Your task to perform on an android device: Open calendar and show me the fourth week of next month Image 0: 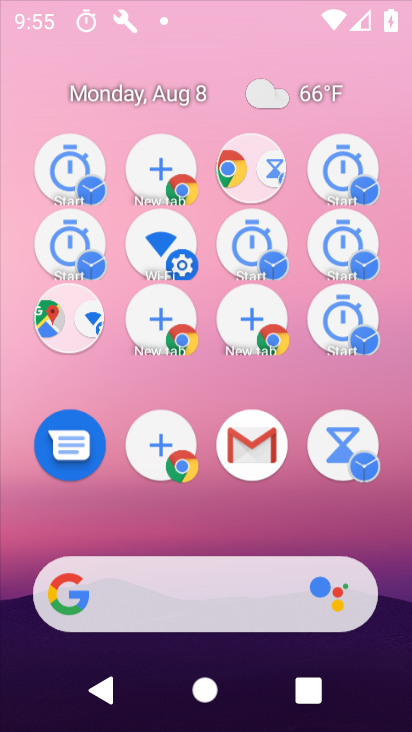
Step 0: click (228, 196)
Your task to perform on an android device: Open calendar and show me the fourth week of next month Image 1: 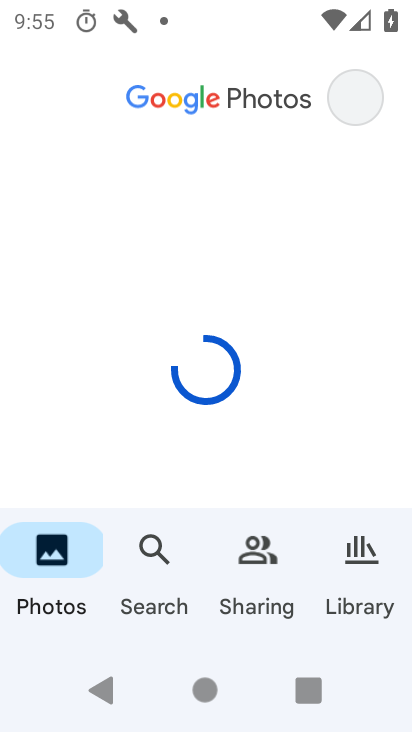
Step 1: press back button
Your task to perform on an android device: Open calendar and show me the fourth week of next month Image 2: 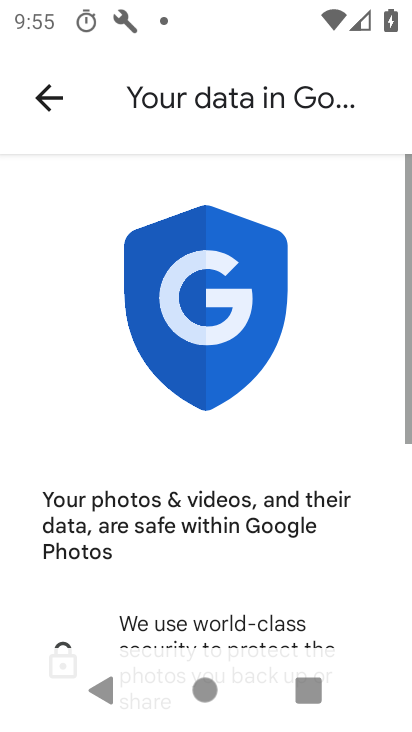
Step 2: press home button
Your task to perform on an android device: Open calendar and show me the fourth week of next month Image 3: 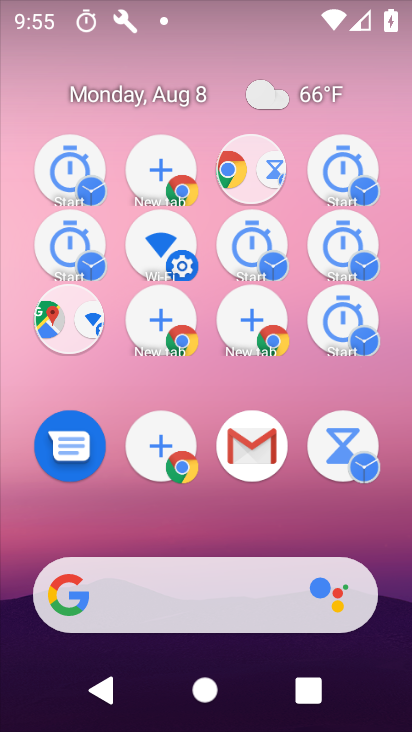
Step 3: drag from (234, 594) to (162, 242)
Your task to perform on an android device: Open calendar and show me the fourth week of next month Image 4: 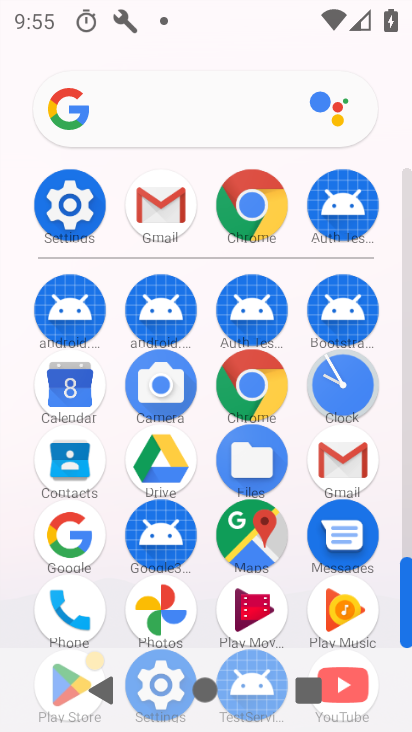
Step 4: click (68, 392)
Your task to perform on an android device: Open calendar and show me the fourth week of next month Image 5: 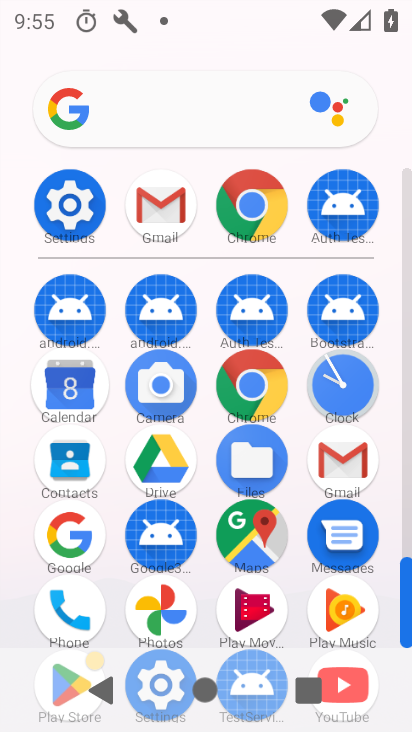
Step 5: click (68, 392)
Your task to perform on an android device: Open calendar and show me the fourth week of next month Image 6: 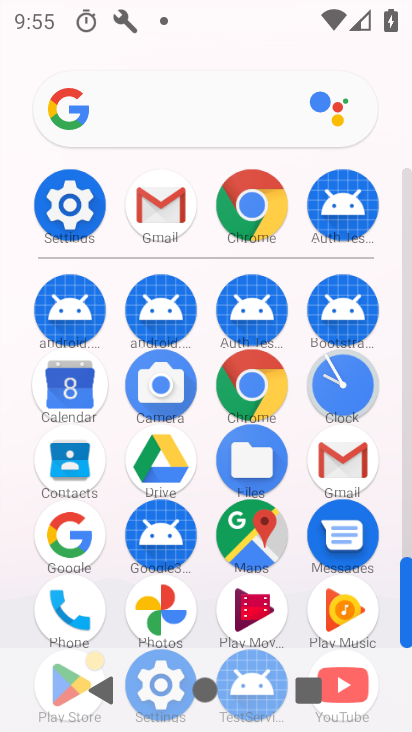
Step 6: click (68, 392)
Your task to perform on an android device: Open calendar and show me the fourth week of next month Image 7: 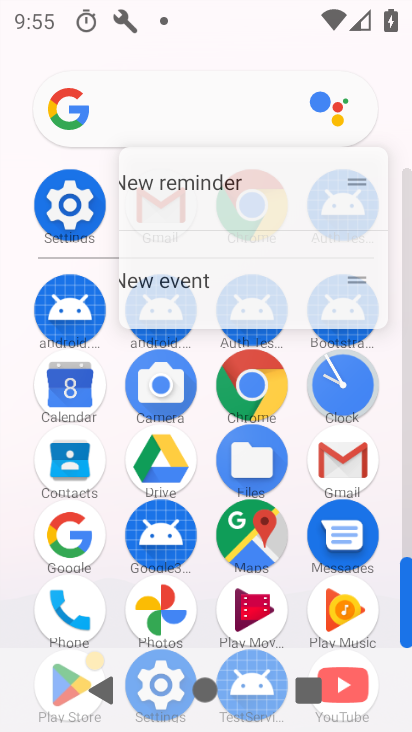
Step 7: click (68, 392)
Your task to perform on an android device: Open calendar and show me the fourth week of next month Image 8: 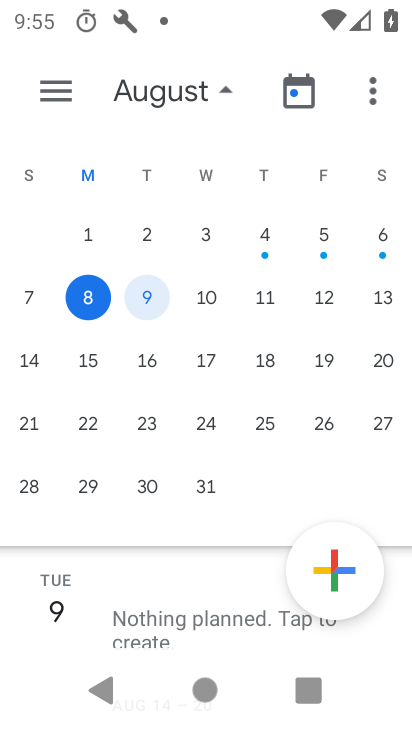
Step 8: drag from (329, 358) to (20, 359)
Your task to perform on an android device: Open calendar and show me the fourth week of next month Image 9: 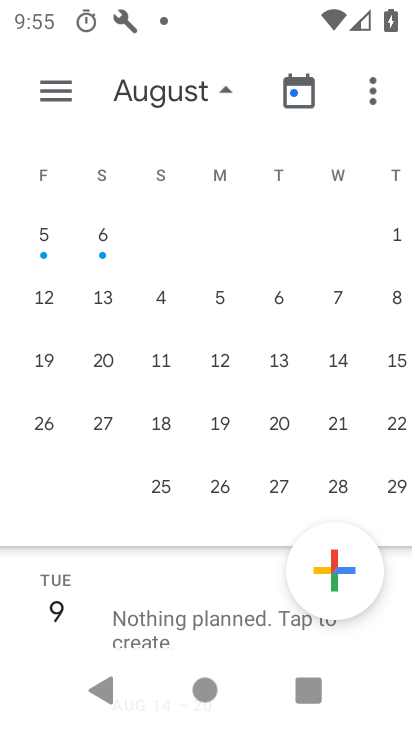
Step 9: drag from (317, 325) to (11, 343)
Your task to perform on an android device: Open calendar and show me the fourth week of next month Image 10: 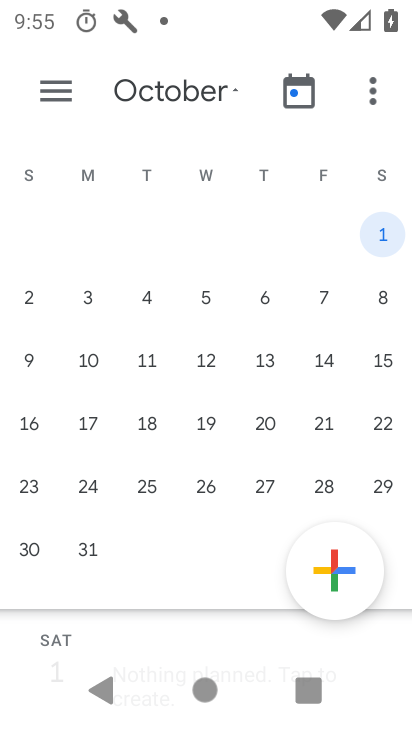
Step 10: drag from (76, 337) to (379, 343)
Your task to perform on an android device: Open calendar and show me the fourth week of next month Image 11: 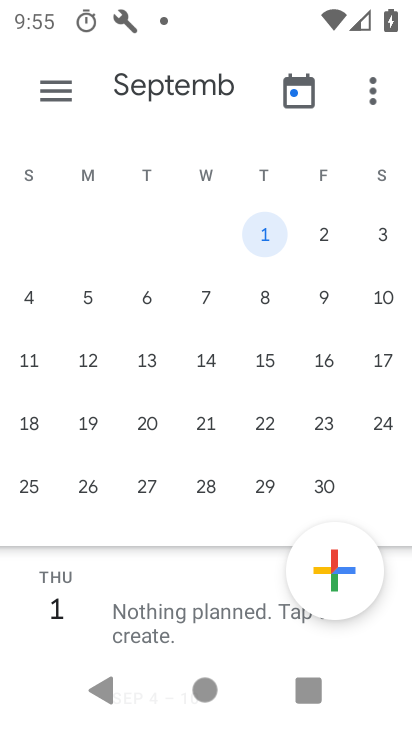
Step 11: click (257, 360)
Your task to perform on an android device: Open calendar and show me the fourth week of next month Image 12: 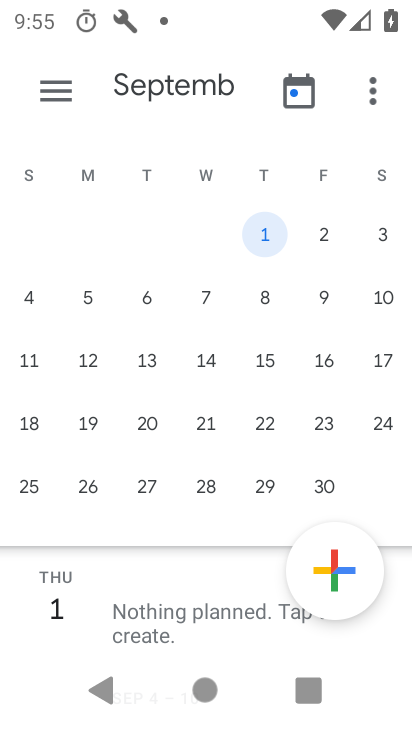
Step 12: click (257, 360)
Your task to perform on an android device: Open calendar and show me the fourth week of next month Image 13: 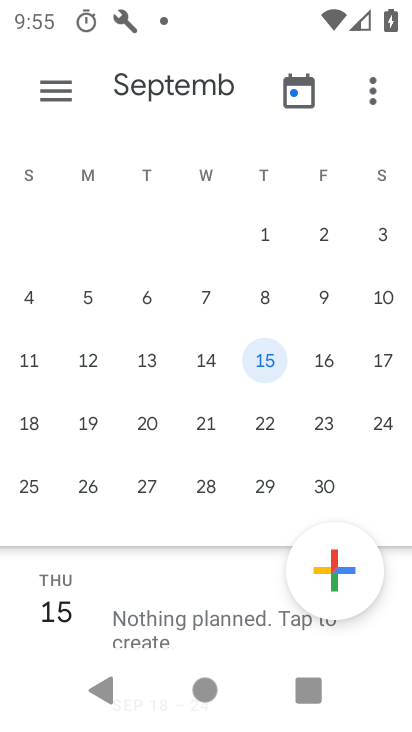
Step 13: click (257, 360)
Your task to perform on an android device: Open calendar and show me the fourth week of next month Image 14: 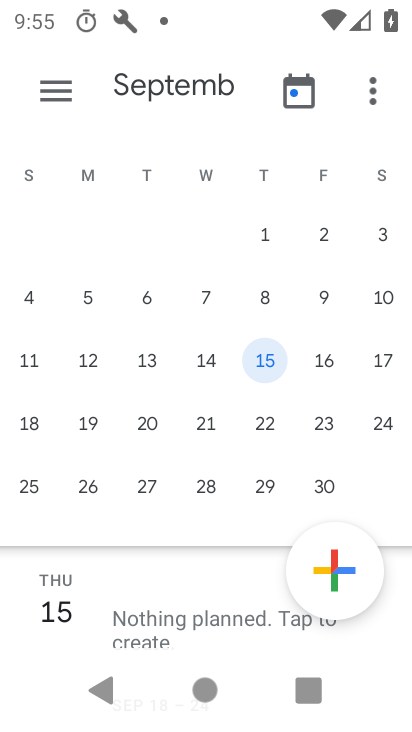
Step 14: click (257, 358)
Your task to perform on an android device: Open calendar and show me the fourth week of next month Image 15: 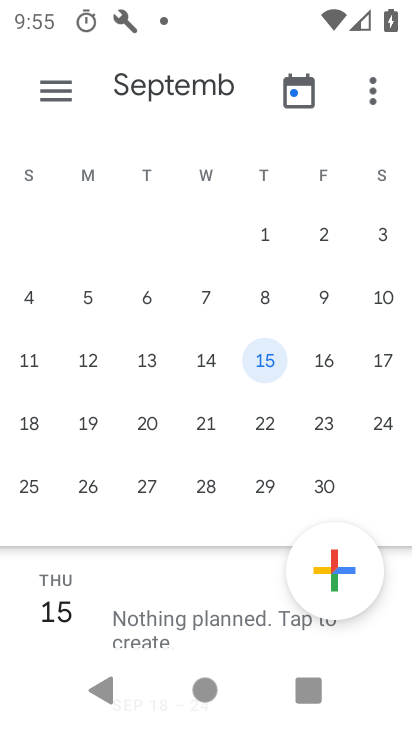
Step 15: click (257, 358)
Your task to perform on an android device: Open calendar and show me the fourth week of next month Image 16: 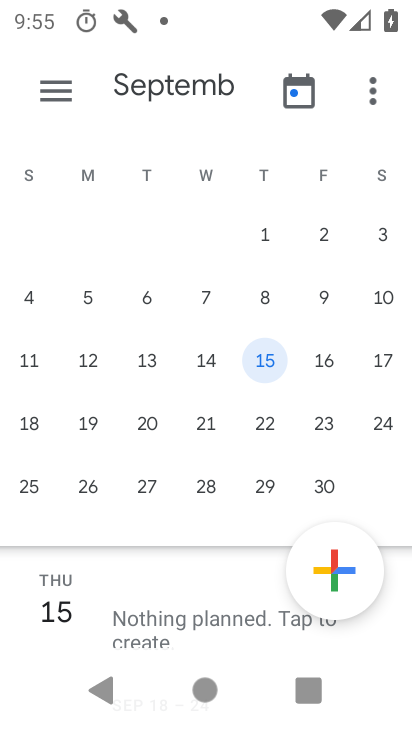
Step 16: click (258, 359)
Your task to perform on an android device: Open calendar and show me the fourth week of next month Image 17: 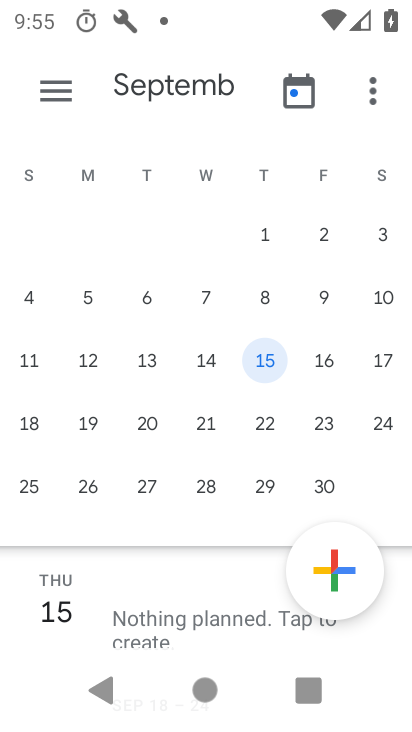
Step 17: task complete